Your task to perform on an android device: open app "Skype" (install if not already installed) and enter user name: "rumor@gmail.com" and password: "kinsman" Image 0: 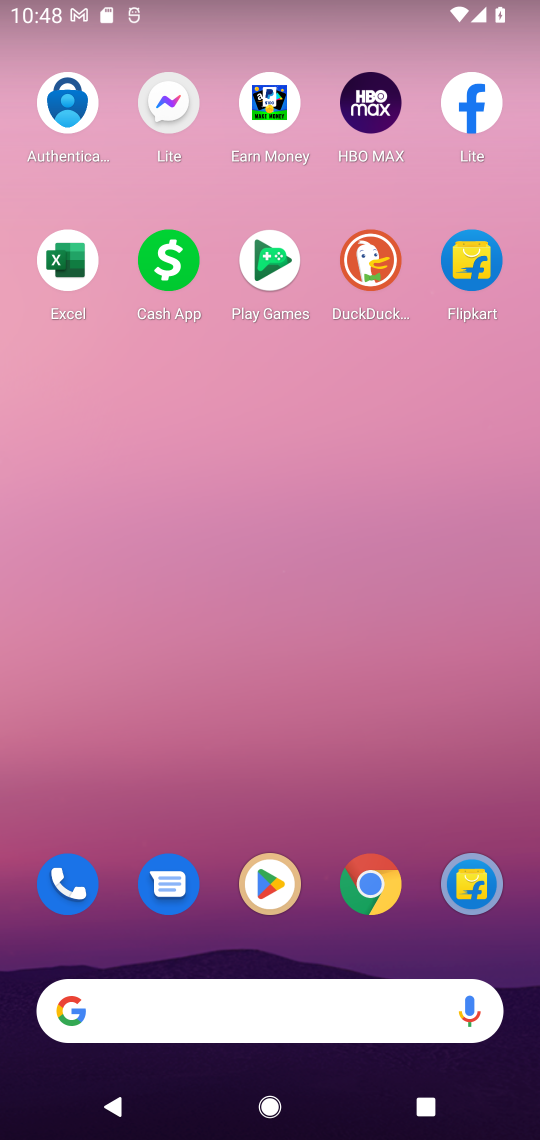
Step 0: drag from (222, 1018) to (450, 104)
Your task to perform on an android device: open app "Skype" (install if not already installed) and enter user name: "rumor@gmail.com" and password: "kinsman" Image 1: 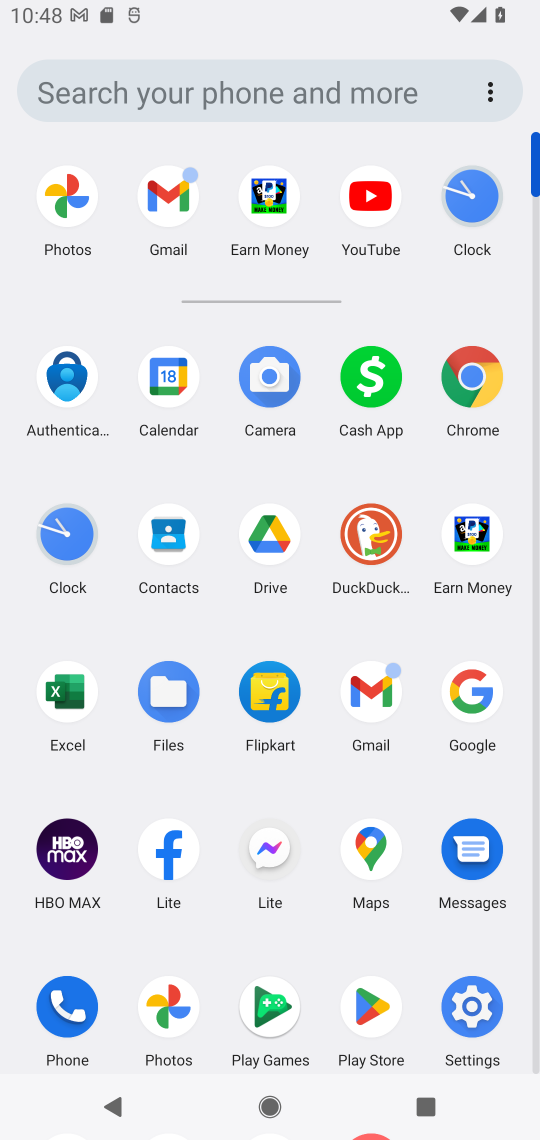
Step 1: click (372, 1001)
Your task to perform on an android device: open app "Skype" (install if not already installed) and enter user name: "rumor@gmail.com" and password: "kinsman" Image 2: 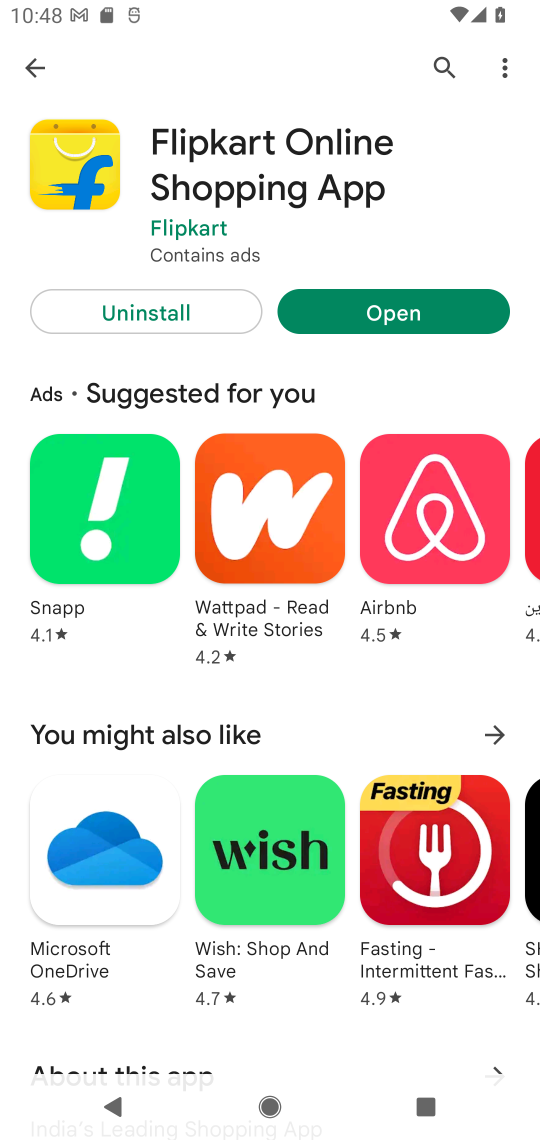
Step 2: press back button
Your task to perform on an android device: open app "Skype" (install if not already installed) and enter user name: "rumor@gmail.com" and password: "kinsman" Image 3: 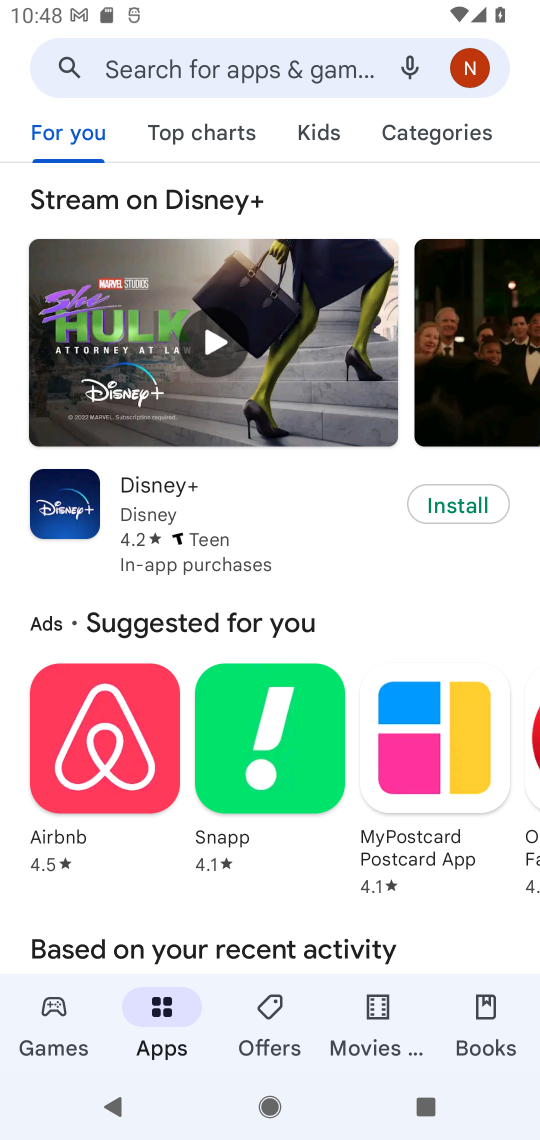
Step 3: click (339, 59)
Your task to perform on an android device: open app "Skype" (install if not already installed) and enter user name: "rumor@gmail.com" and password: "kinsman" Image 4: 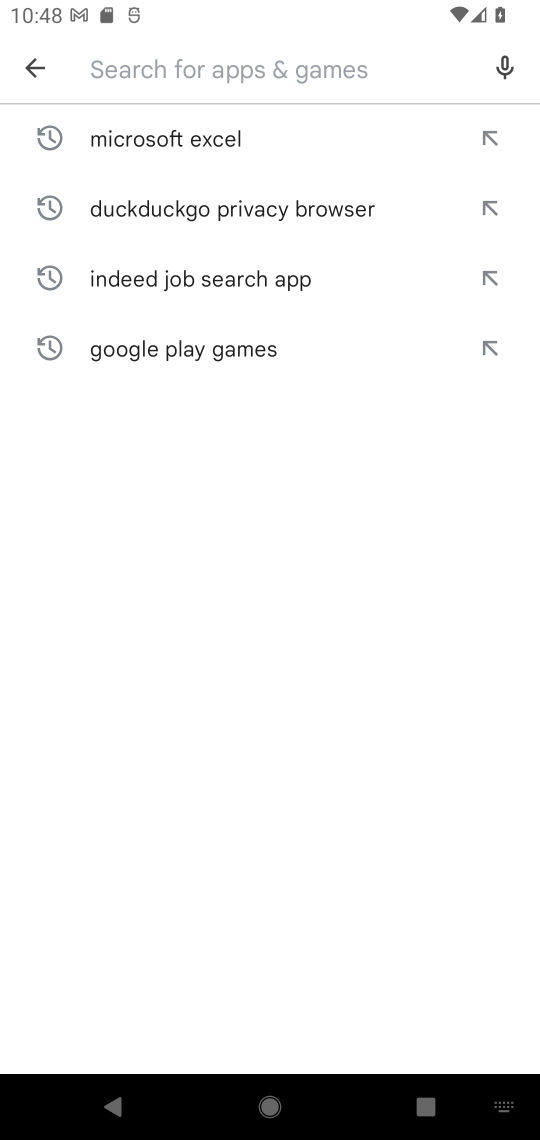
Step 4: type "Skype"
Your task to perform on an android device: open app "Skype" (install if not already installed) and enter user name: "rumor@gmail.com" and password: "kinsman" Image 5: 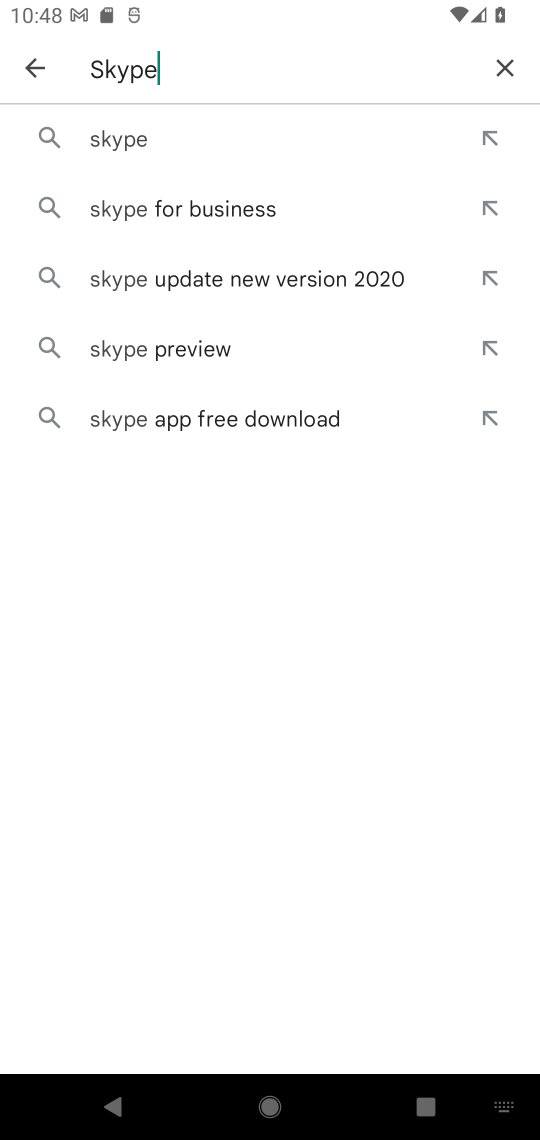
Step 5: click (132, 141)
Your task to perform on an android device: open app "Skype" (install if not already installed) and enter user name: "rumor@gmail.com" and password: "kinsman" Image 6: 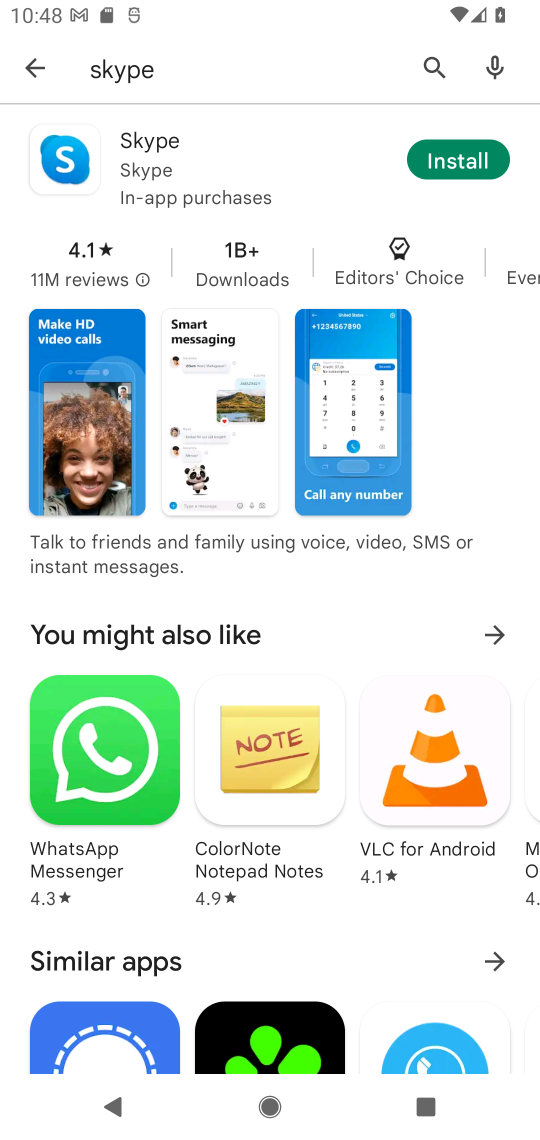
Step 6: click (450, 167)
Your task to perform on an android device: open app "Skype" (install if not already installed) and enter user name: "rumor@gmail.com" and password: "kinsman" Image 7: 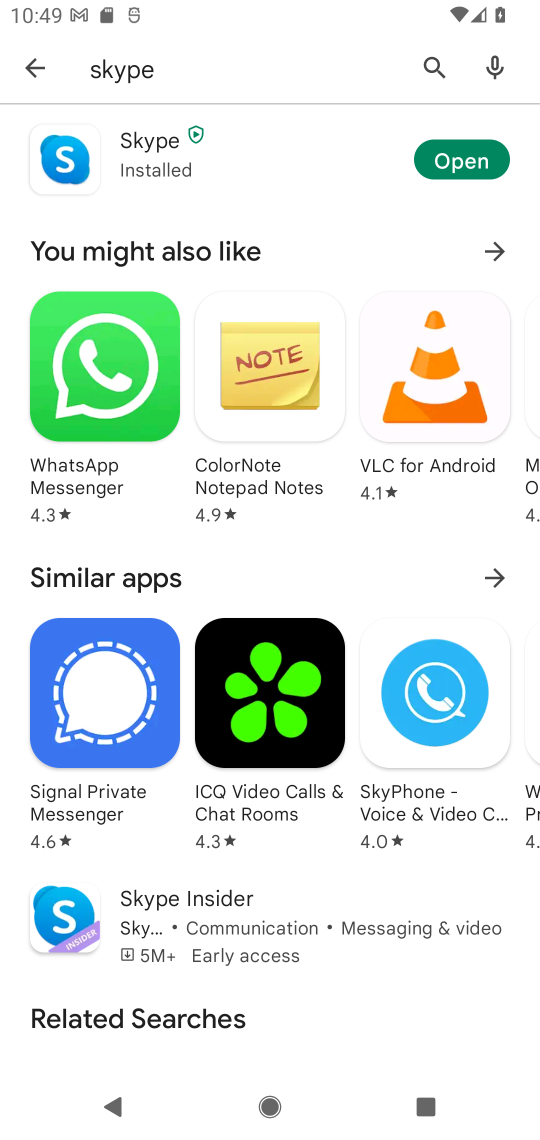
Step 7: click (460, 157)
Your task to perform on an android device: open app "Skype" (install if not already installed) and enter user name: "rumor@gmail.com" and password: "kinsman" Image 8: 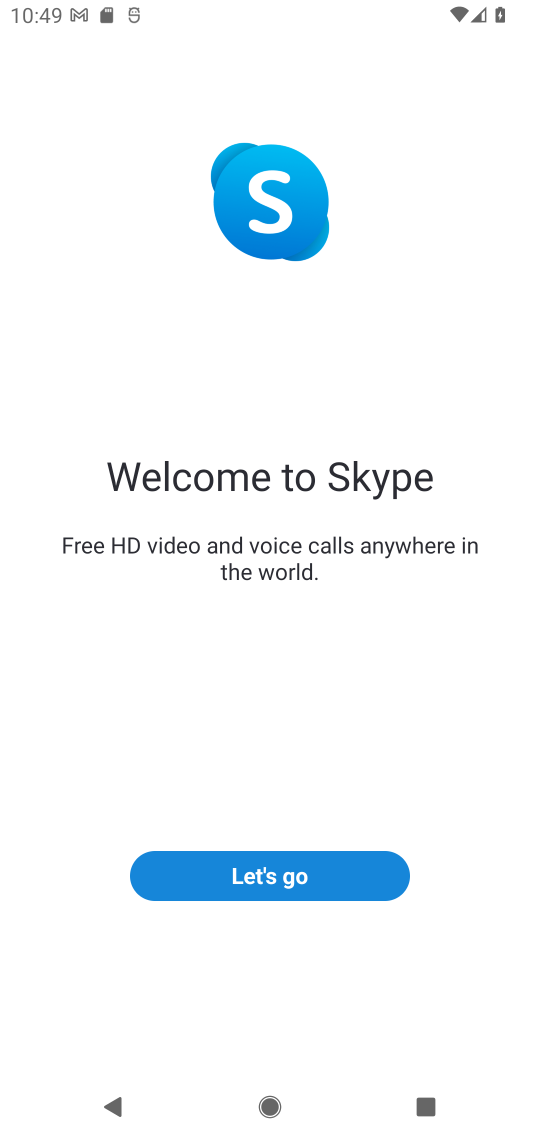
Step 8: click (267, 870)
Your task to perform on an android device: open app "Skype" (install if not already installed) and enter user name: "rumor@gmail.com" and password: "kinsman" Image 9: 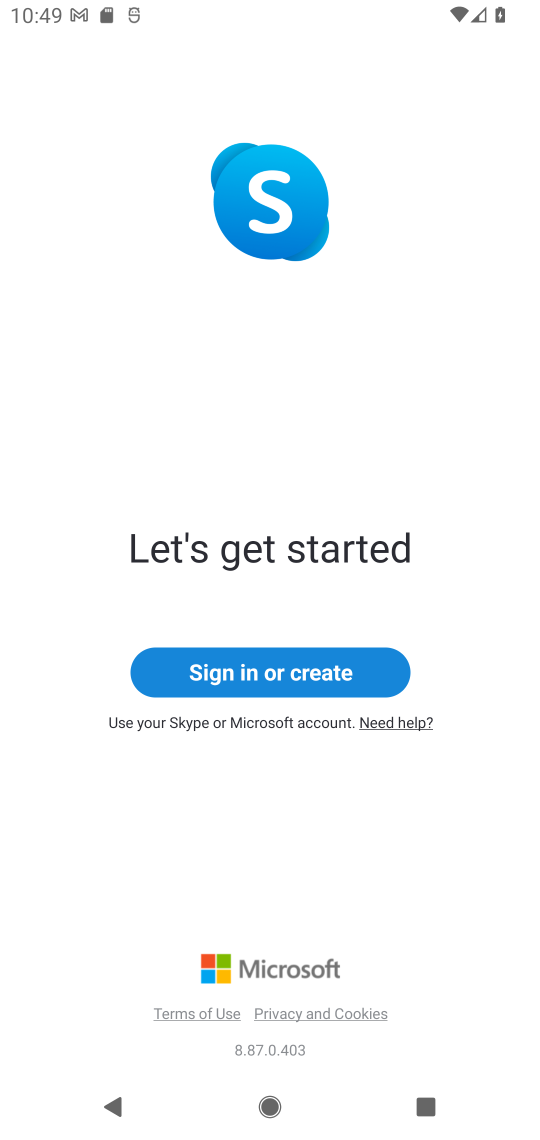
Step 9: click (285, 668)
Your task to perform on an android device: open app "Skype" (install if not already installed) and enter user name: "rumor@gmail.com" and password: "kinsman" Image 10: 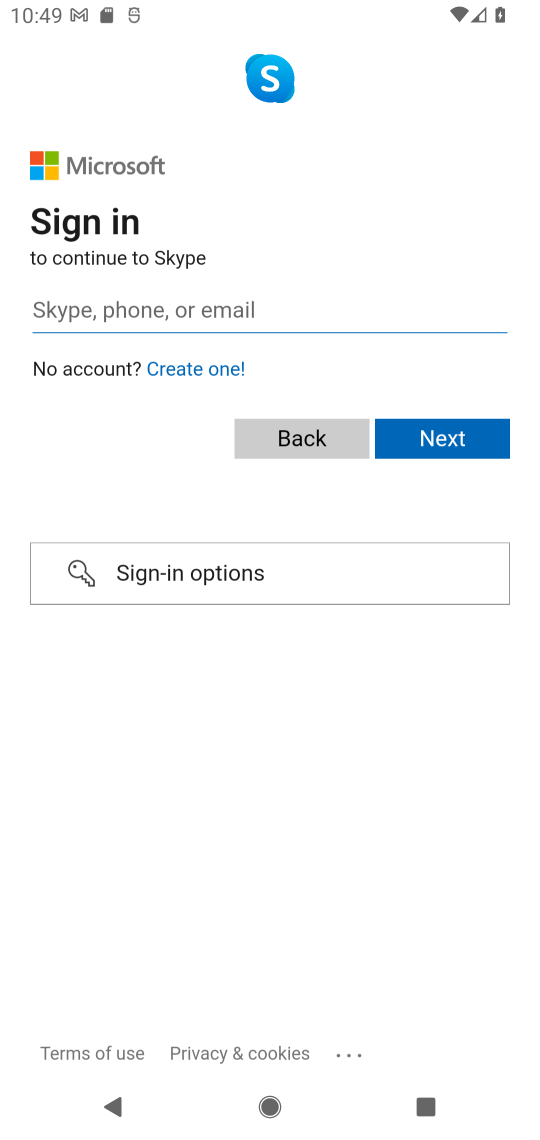
Step 10: type "rumor@gmail.com"
Your task to perform on an android device: open app "Skype" (install if not already installed) and enter user name: "rumor@gmail.com" and password: "kinsman" Image 11: 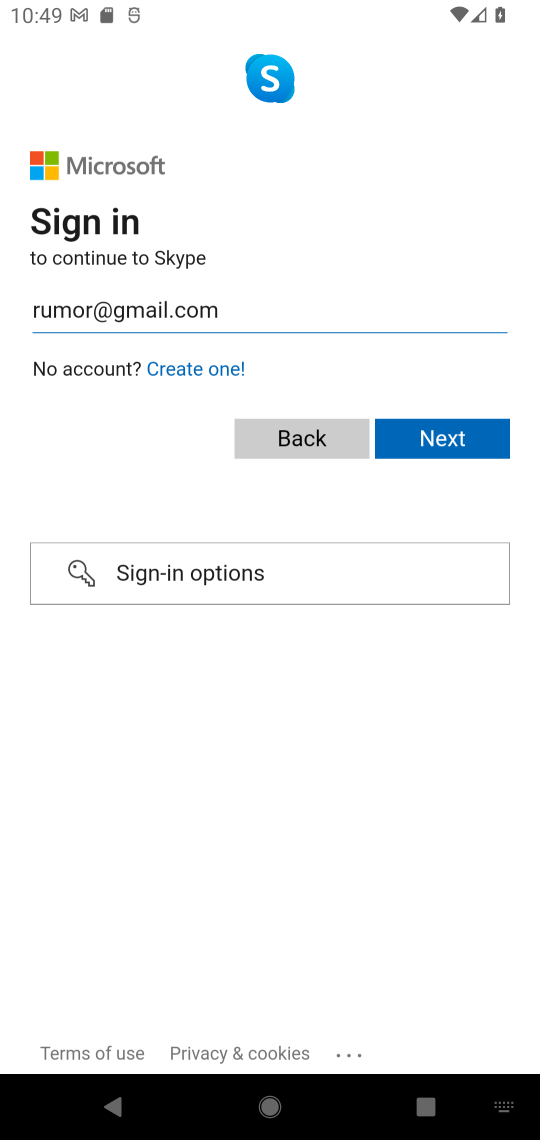
Step 11: click (426, 428)
Your task to perform on an android device: open app "Skype" (install if not already installed) and enter user name: "rumor@gmail.com" and password: "kinsman" Image 12: 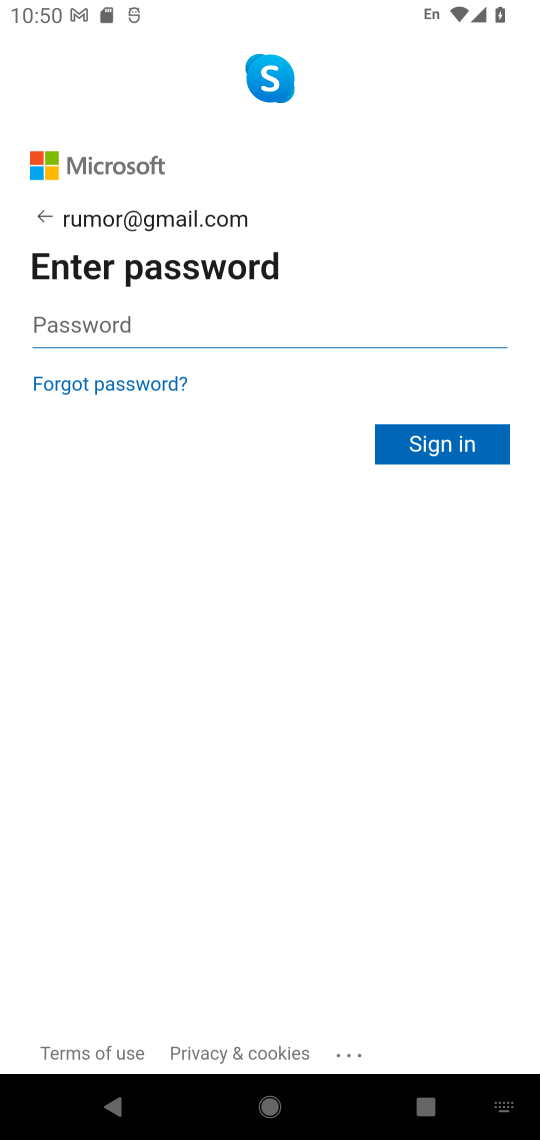
Step 12: type "kinsman"
Your task to perform on an android device: open app "Skype" (install if not already installed) and enter user name: "rumor@gmail.com" and password: "kinsman" Image 13: 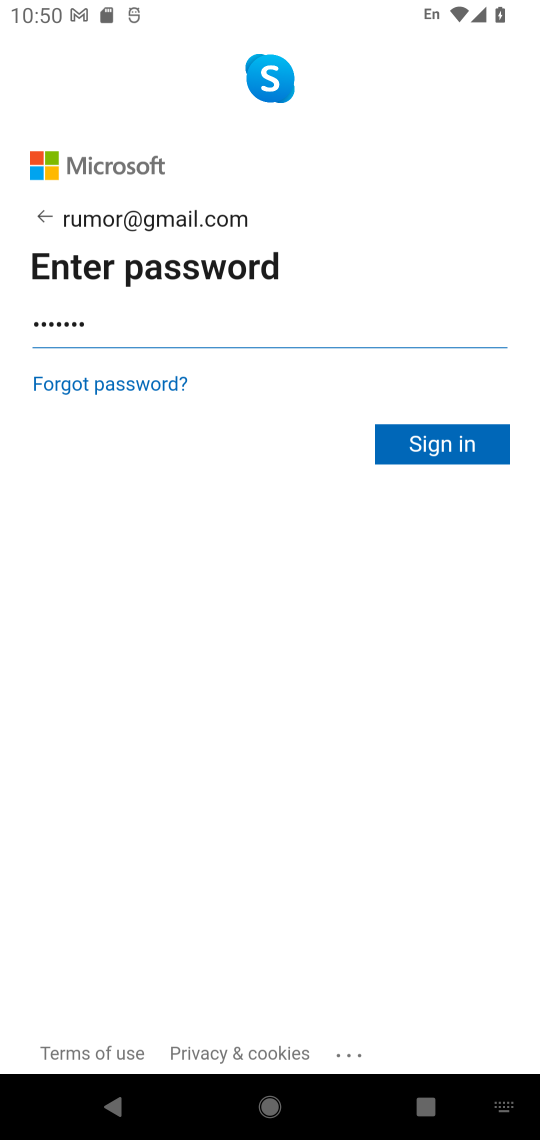
Step 13: task complete